Your task to perform on an android device: empty trash in the gmail app Image 0: 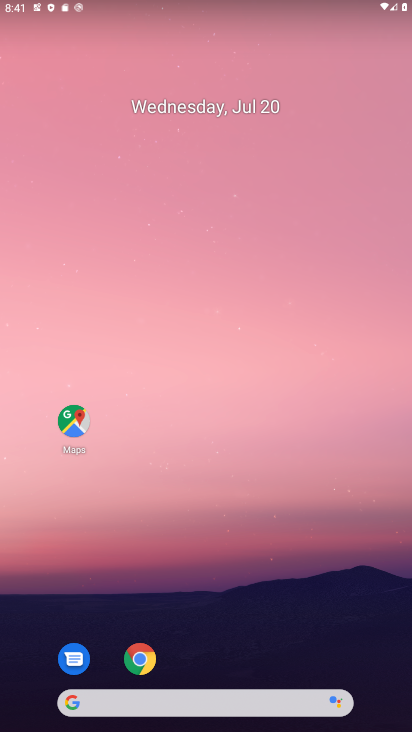
Step 0: drag from (284, 651) to (339, 140)
Your task to perform on an android device: empty trash in the gmail app Image 1: 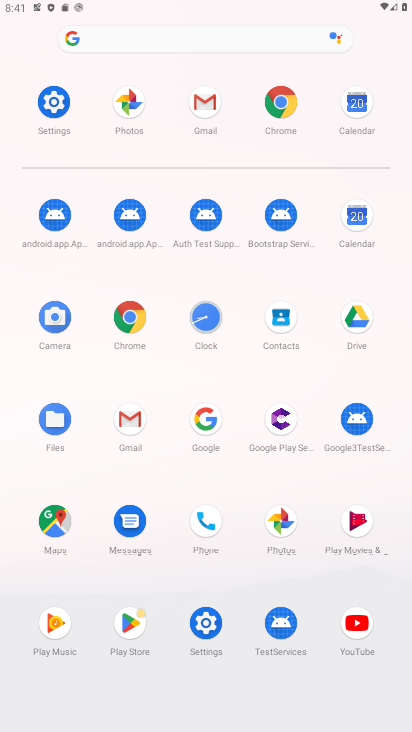
Step 1: click (128, 420)
Your task to perform on an android device: empty trash in the gmail app Image 2: 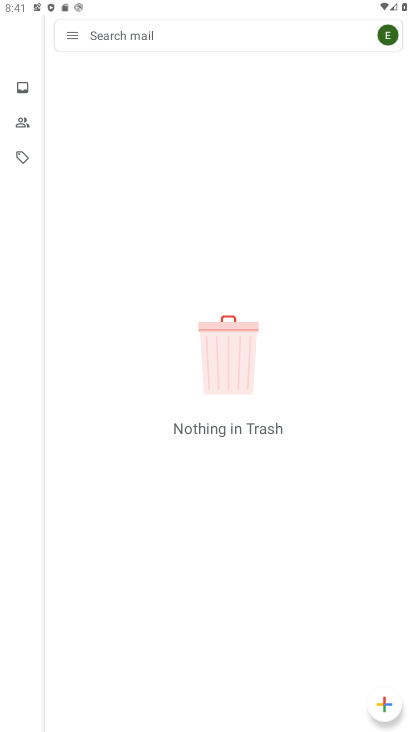
Step 2: click (72, 35)
Your task to perform on an android device: empty trash in the gmail app Image 3: 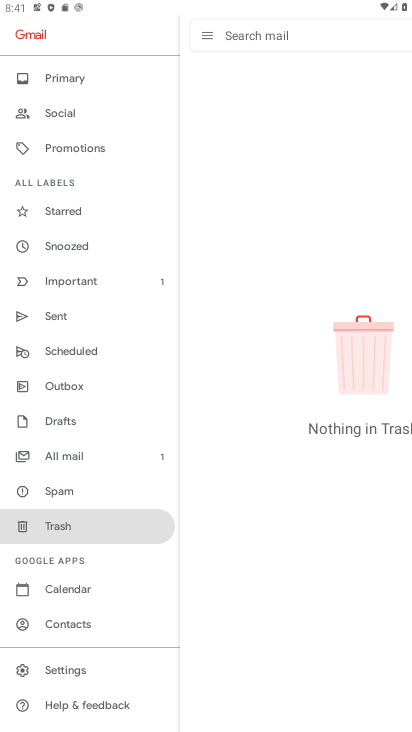
Step 3: click (78, 525)
Your task to perform on an android device: empty trash in the gmail app Image 4: 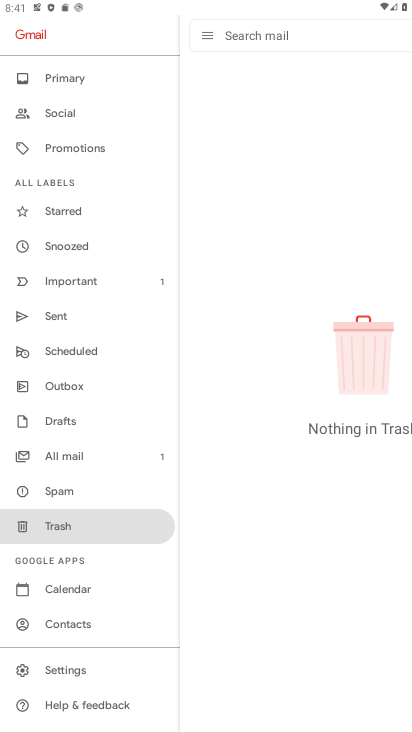
Step 4: task complete